Your task to perform on an android device: open app "ColorNote Notepad Notes" (install if not already installed) Image 0: 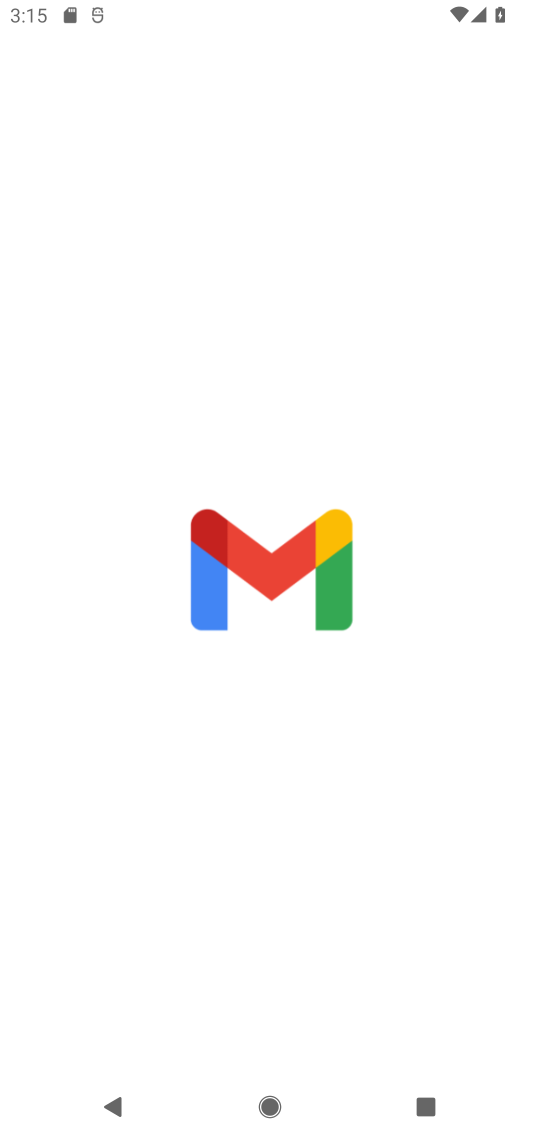
Step 0: press home button
Your task to perform on an android device: open app "ColorNote Notepad Notes" (install if not already installed) Image 1: 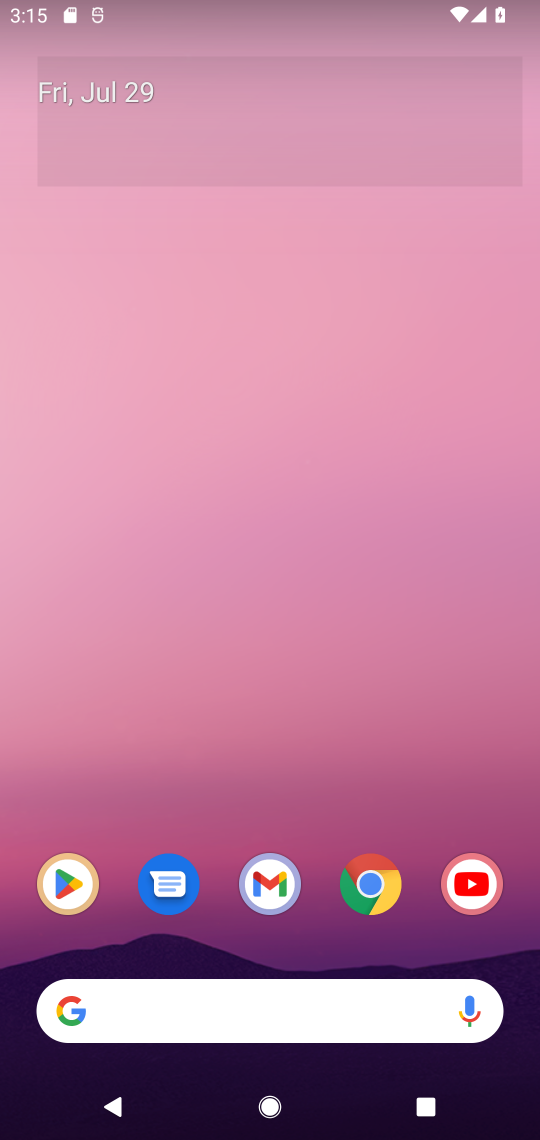
Step 1: click (67, 890)
Your task to perform on an android device: open app "ColorNote Notepad Notes" (install if not already installed) Image 2: 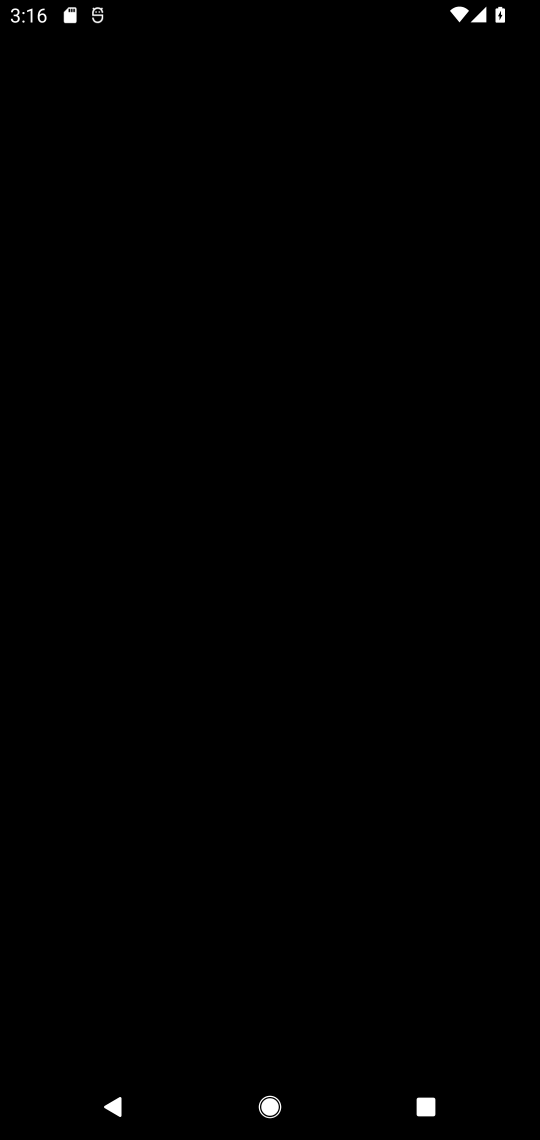
Step 2: press home button
Your task to perform on an android device: open app "ColorNote Notepad Notes" (install if not already installed) Image 3: 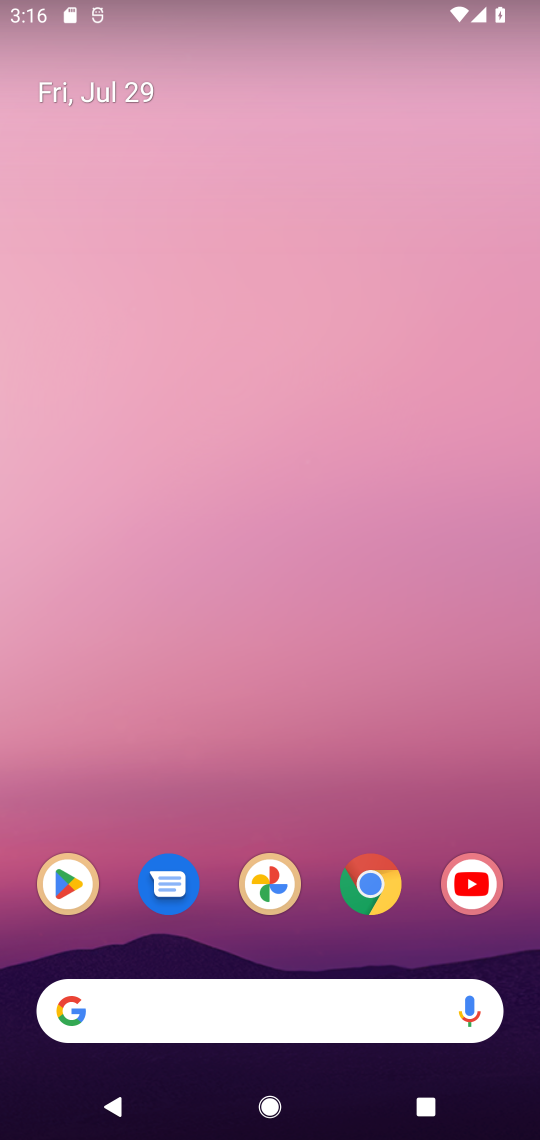
Step 3: click (56, 896)
Your task to perform on an android device: open app "ColorNote Notepad Notes" (install if not already installed) Image 4: 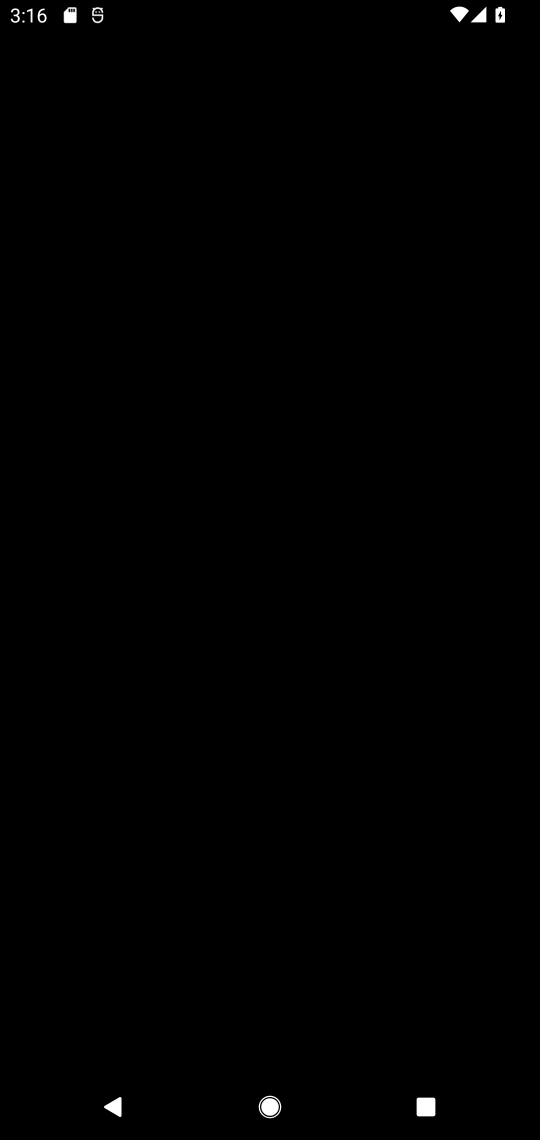
Step 4: press home button
Your task to perform on an android device: open app "ColorNote Notepad Notes" (install if not already installed) Image 5: 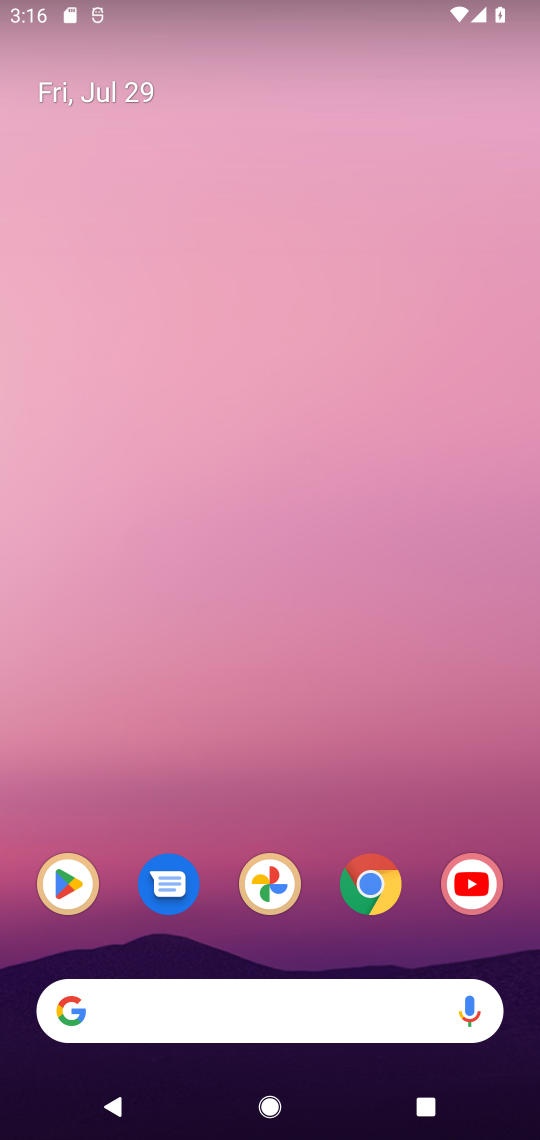
Step 5: drag from (313, 942) to (376, 83)
Your task to perform on an android device: open app "ColorNote Notepad Notes" (install if not already installed) Image 6: 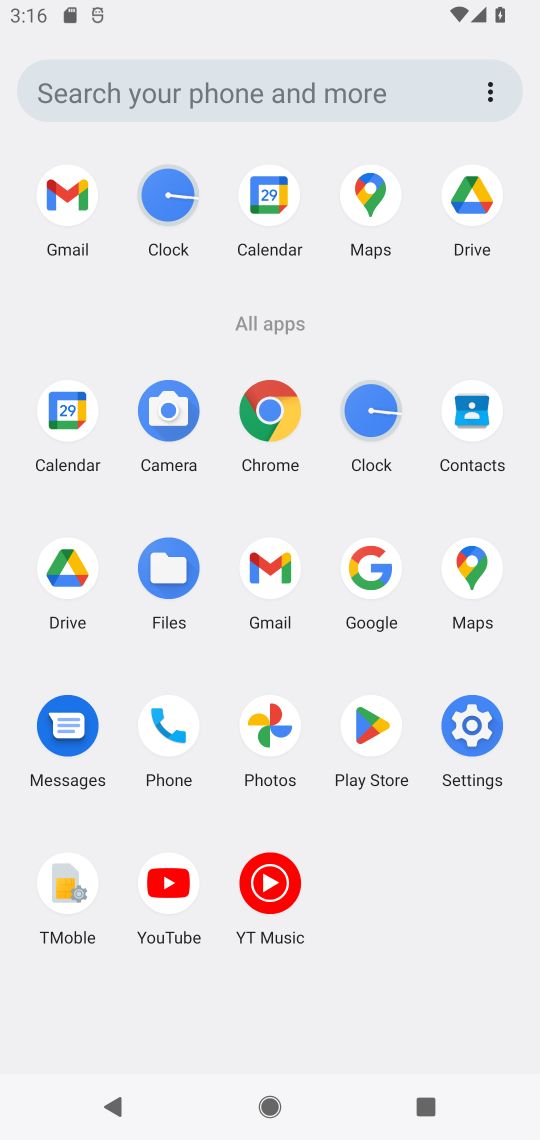
Step 6: click (284, 93)
Your task to perform on an android device: open app "ColorNote Notepad Notes" (install if not already installed) Image 7: 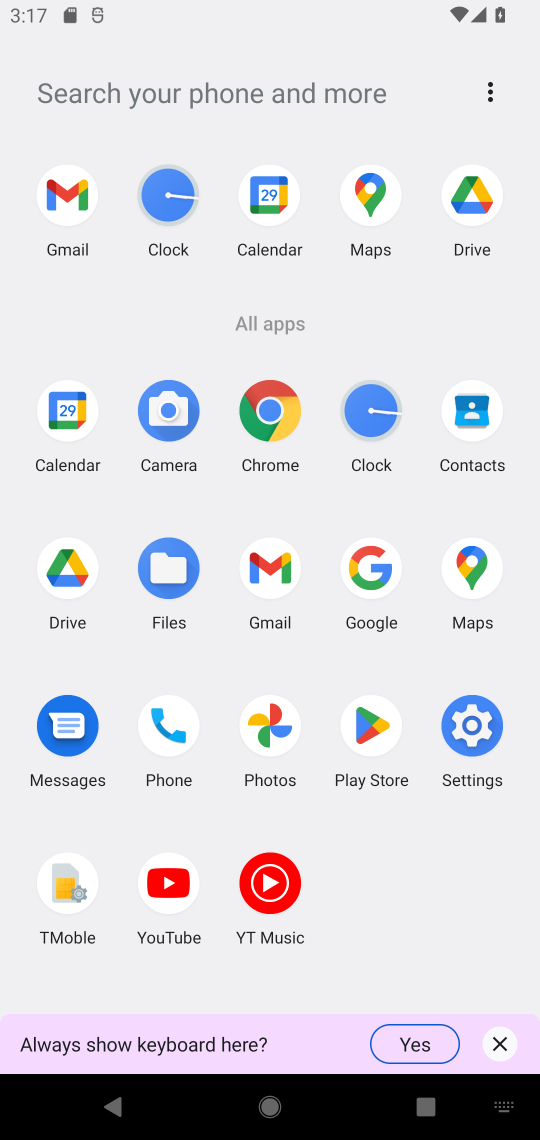
Step 7: type "colornote notepad"
Your task to perform on an android device: open app "ColorNote Notepad Notes" (install if not already installed) Image 8: 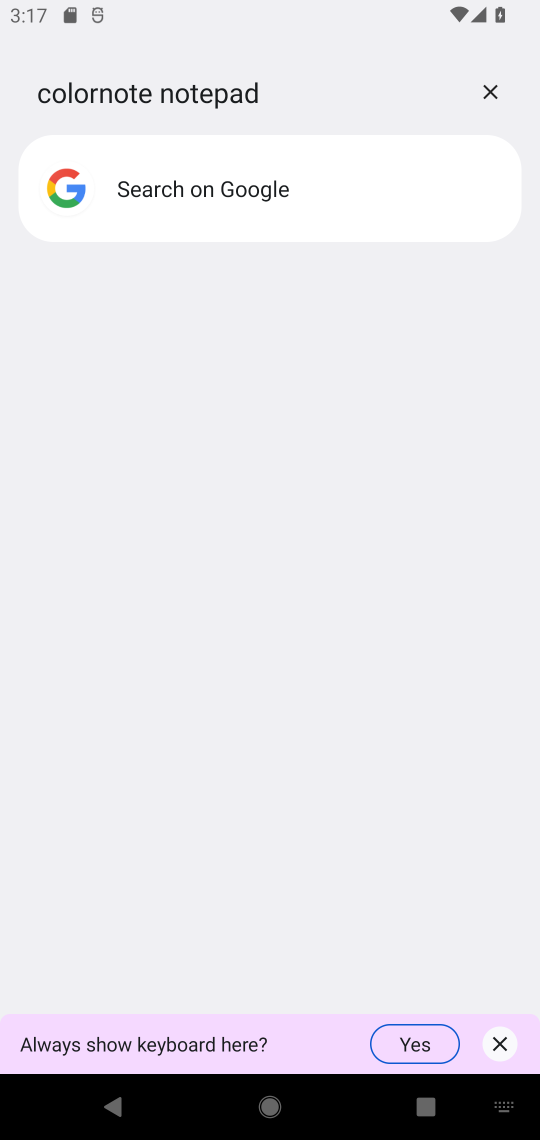
Step 8: click (269, 190)
Your task to perform on an android device: open app "ColorNote Notepad Notes" (install if not already installed) Image 9: 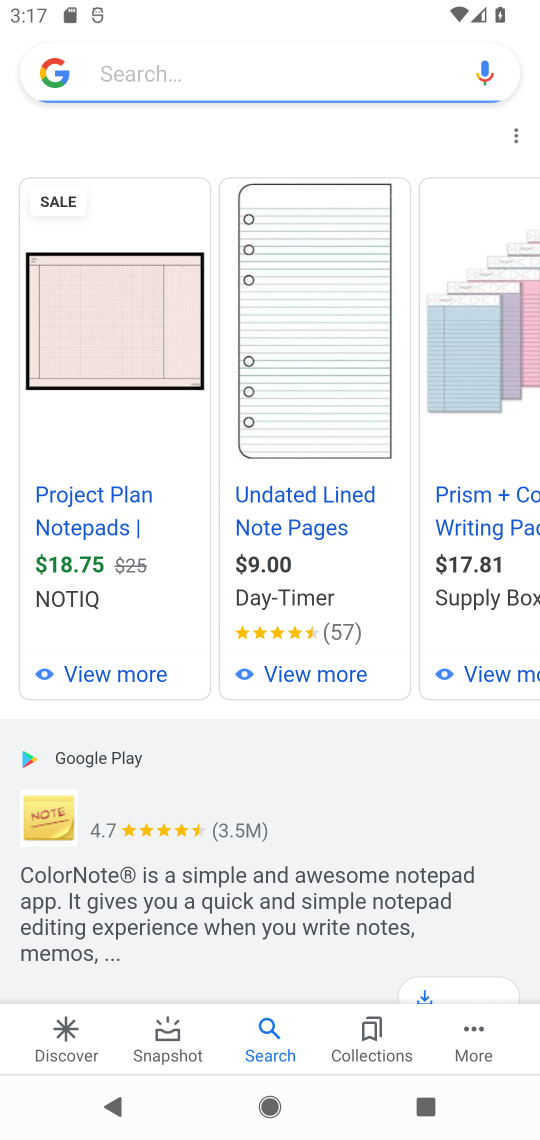
Step 9: click (143, 764)
Your task to perform on an android device: open app "ColorNote Notepad Notes" (install if not already installed) Image 10: 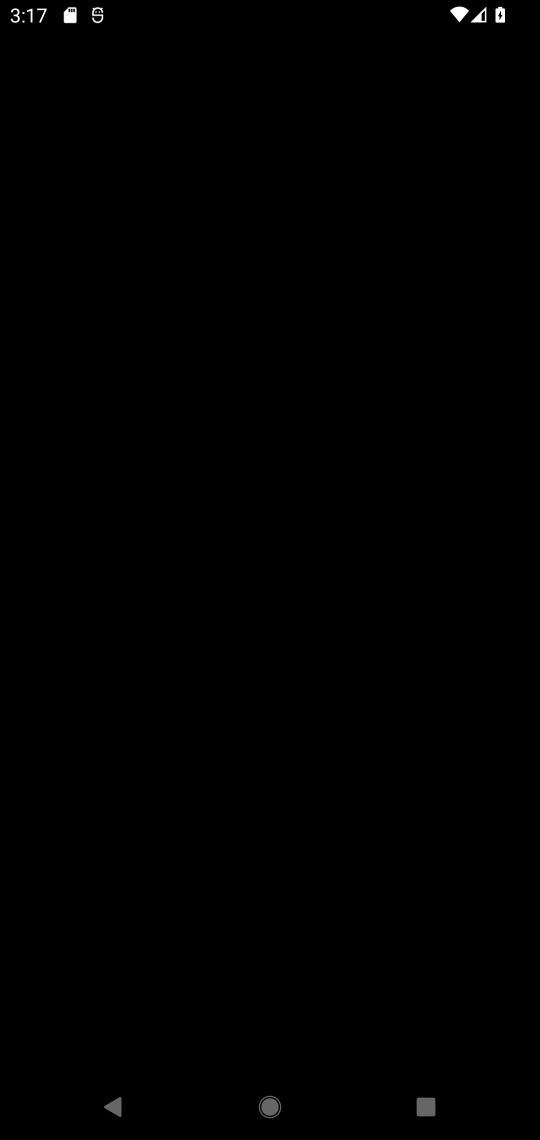
Step 10: task complete